Your task to perform on an android device: change the clock style Image 0: 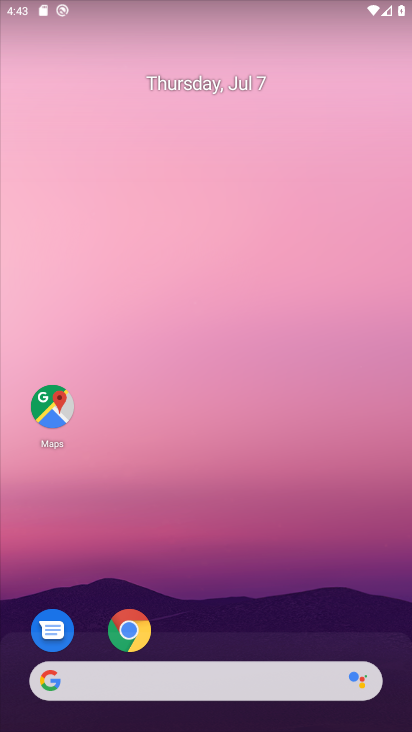
Step 0: drag from (178, 647) to (296, 42)
Your task to perform on an android device: change the clock style Image 1: 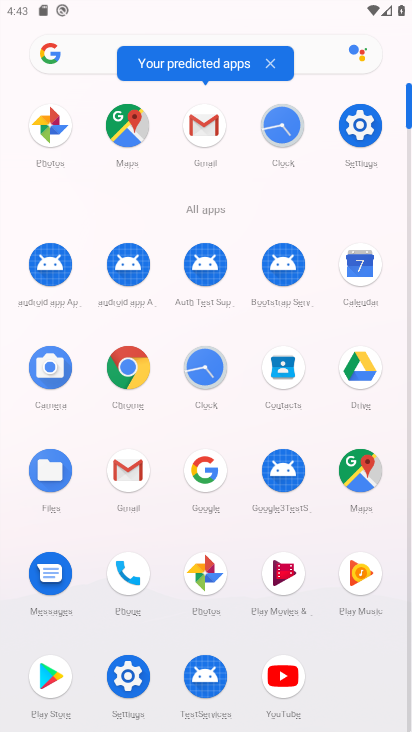
Step 1: click (198, 399)
Your task to perform on an android device: change the clock style Image 2: 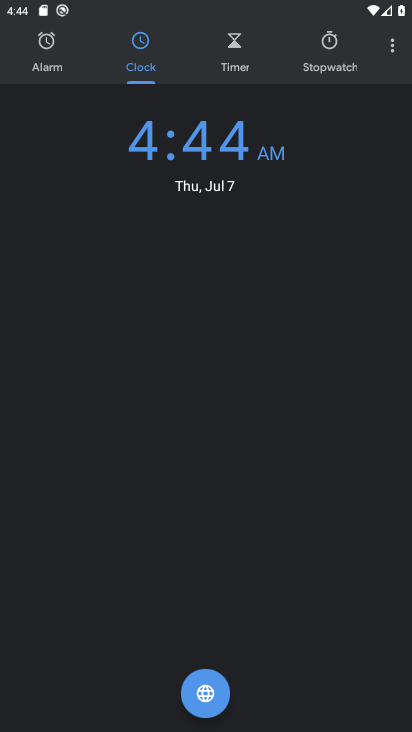
Step 2: click (384, 48)
Your task to perform on an android device: change the clock style Image 3: 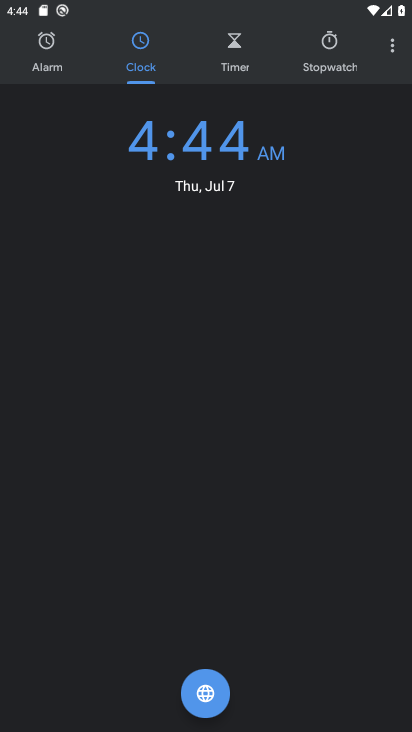
Step 3: click (399, 39)
Your task to perform on an android device: change the clock style Image 4: 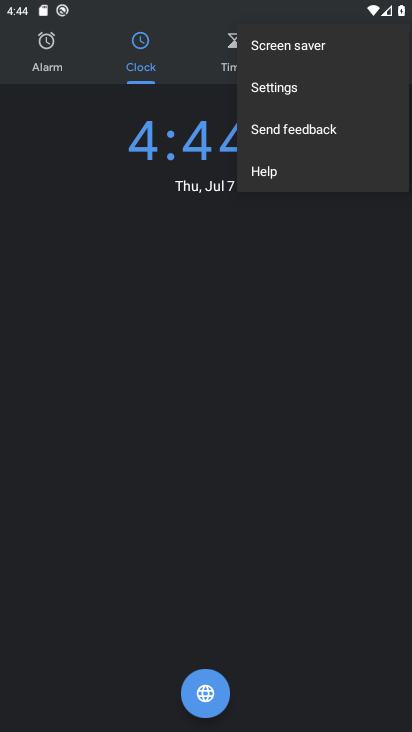
Step 4: click (368, 78)
Your task to perform on an android device: change the clock style Image 5: 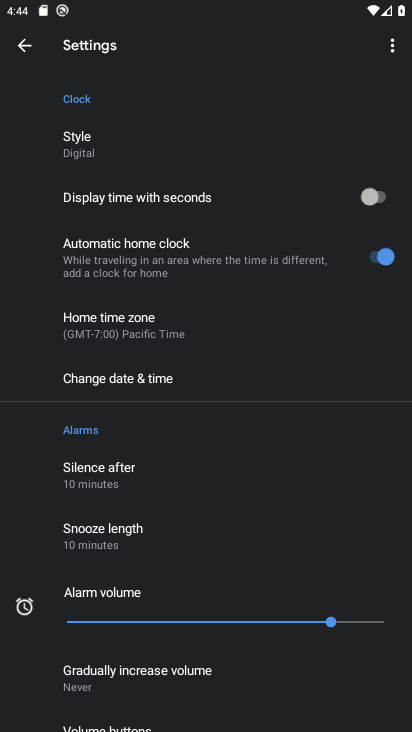
Step 5: click (103, 154)
Your task to perform on an android device: change the clock style Image 6: 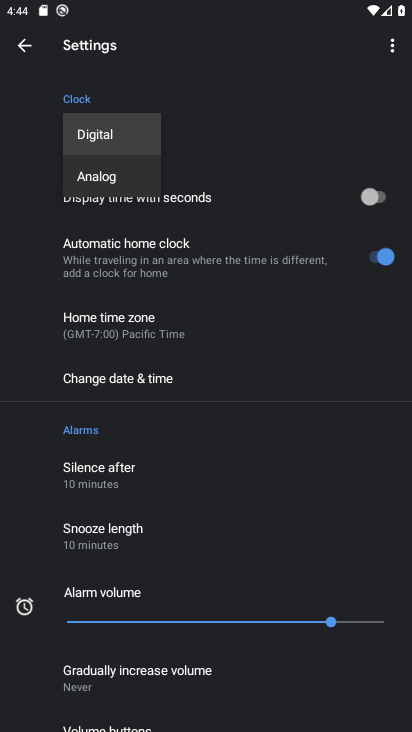
Step 6: click (111, 175)
Your task to perform on an android device: change the clock style Image 7: 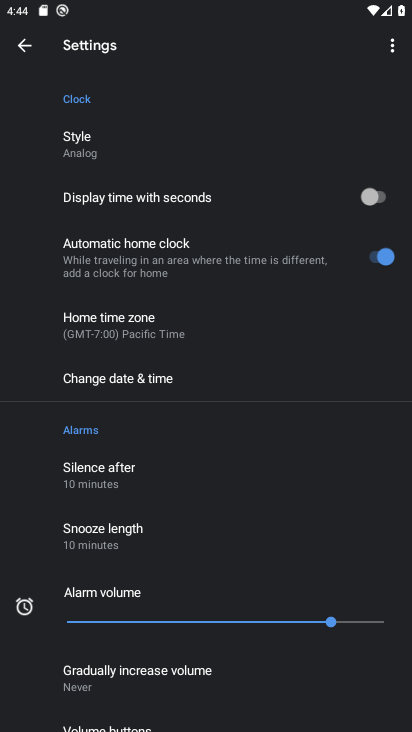
Step 7: task complete